Your task to perform on an android device: Open calendar and show me the fourth week of next month Image 0: 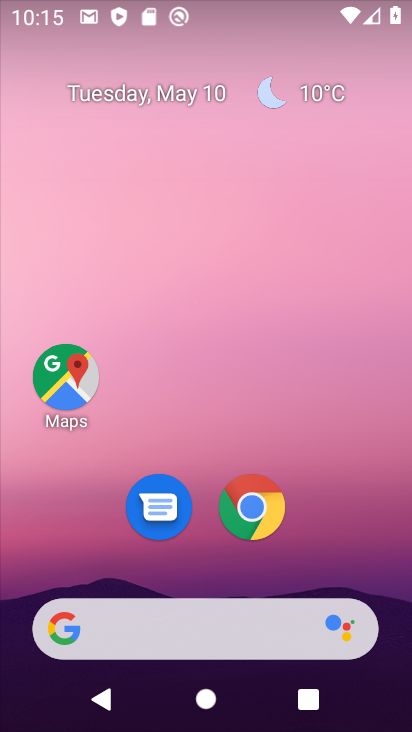
Step 0: drag from (329, 545) to (312, 142)
Your task to perform on an android device: Open calendar and show me the fourth week of next month Image 1: 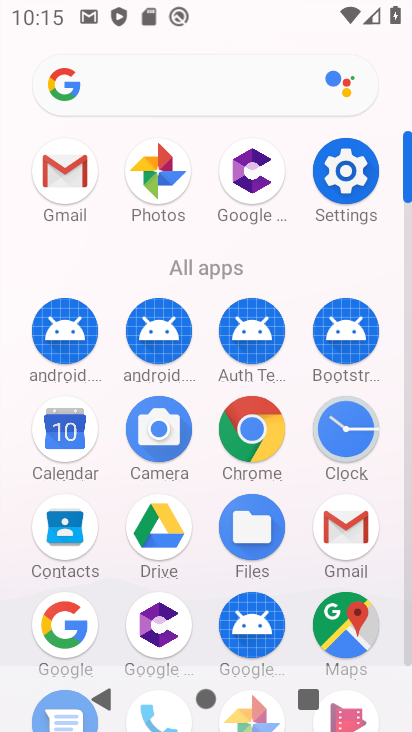
Step 1: click (78, 428)
Your task to perform on an android device: Open calendar and show me the fourth week of next month Image 2: 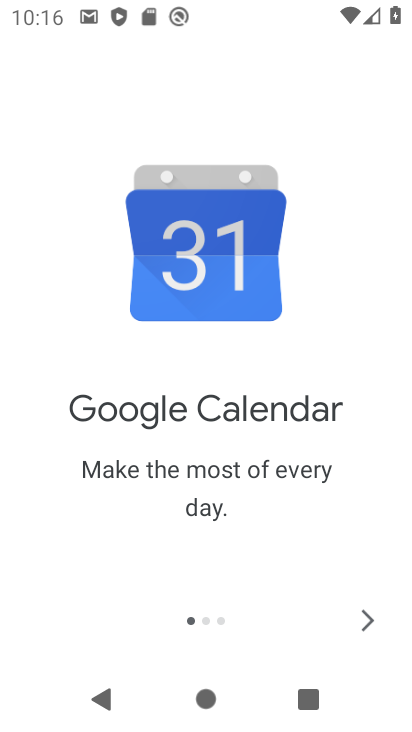
Step 2: click (372, 618)
Your task to perform on an android device: Open calendar and show me the fourth week of next month Image 3: 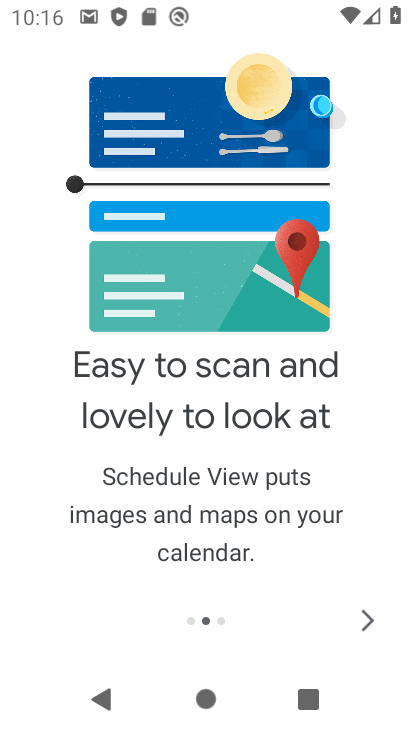
Step 3: click (366, 620)
Your task to perform on an android device: Open calendar and show me the fourth week of next month Image 4: 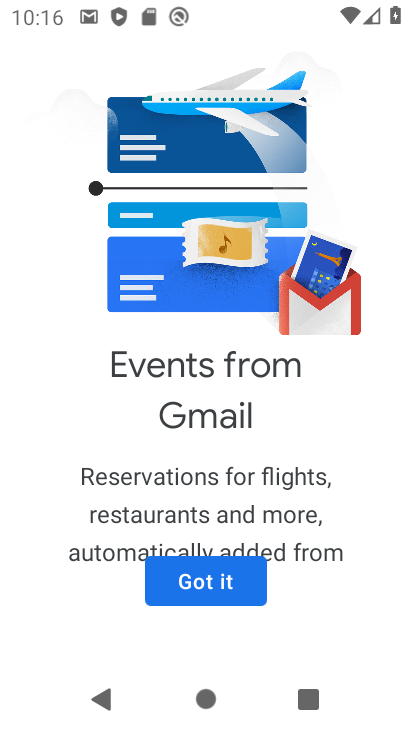
Step 4: click (252, 588)
Your task to perform on an android device: Open calendar and show me the fourth week of next month Image 5: 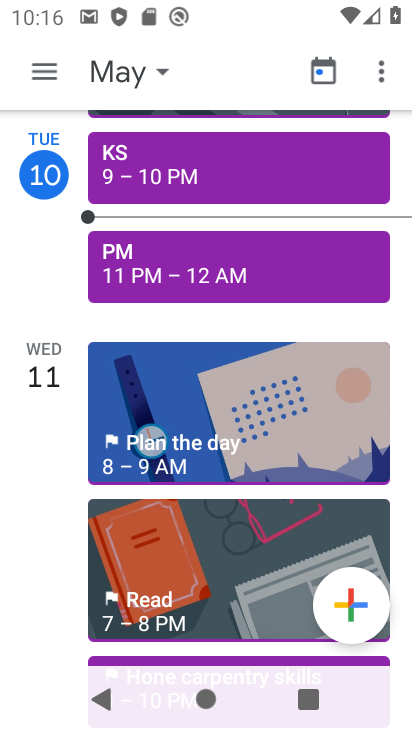
Step 5: click (119, 87)
Your task to perform on an android device: Open calendar and show me the fourth week of next month Image 6: 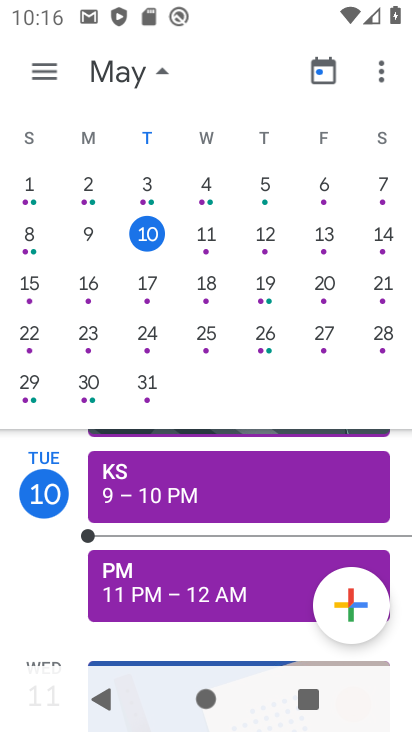
Step 6: drag from (327, 282) to (8, 269)
Your task to perform on an android device: Open calendar and show me the fourth week of next month Image 7: 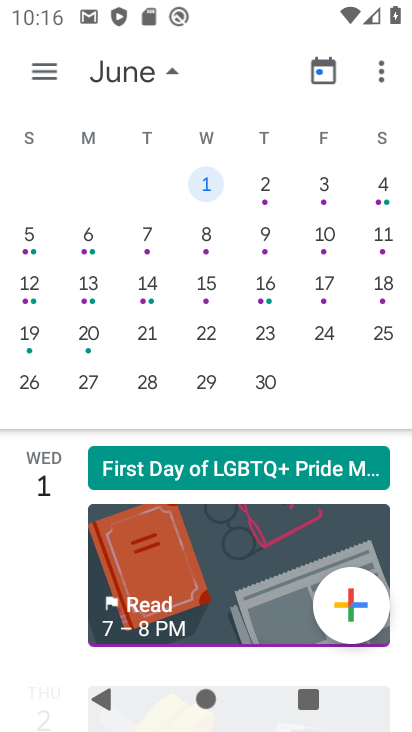
Step 7: click (39, 335)
Your task to perform on an android device: Open calendar and show me the fourth week of next month Image 8: 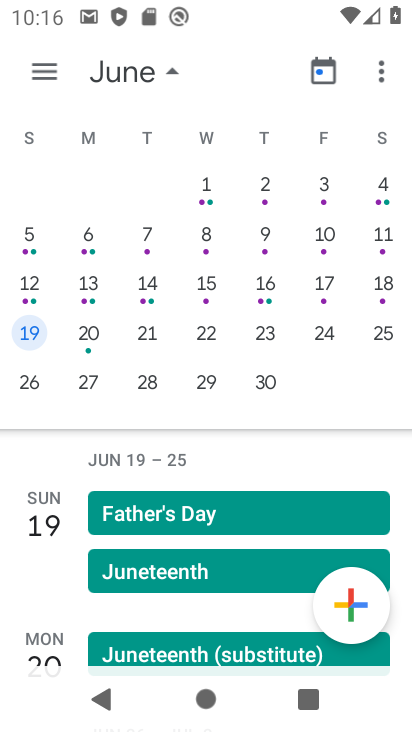
Step 8: click (94, 340)
Your task to perform on an android device: Open calendar and show me the fourth week of next month Image 9: 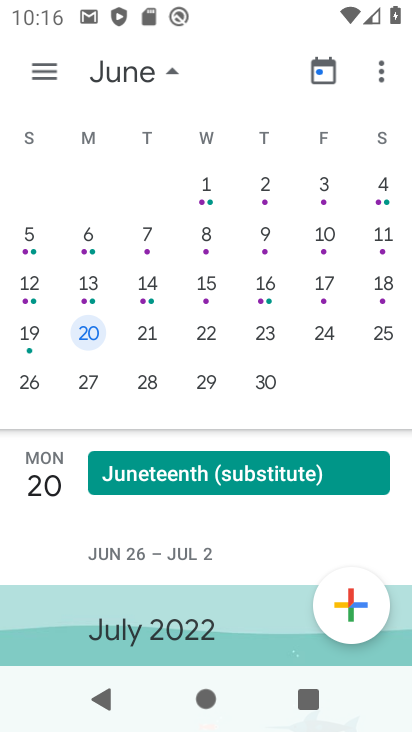
Step 9: click (163, 342)
Your task to perform on an android device: Open calendar and show me the fourth week of next month Image 10: 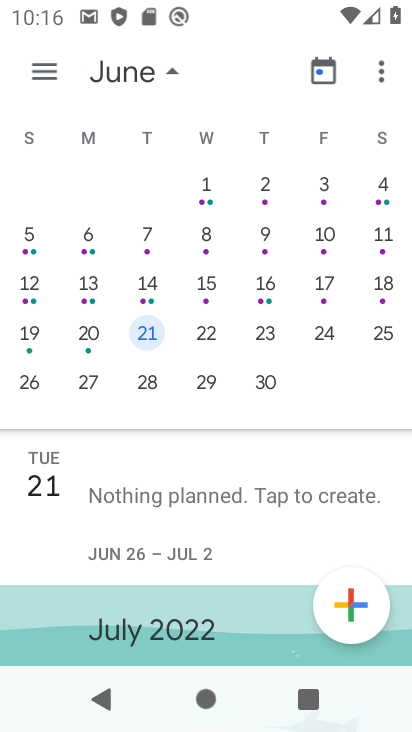
Step 10: click (196, 341)
Your task to perform on an android device: Open calendar and show me the fourth week of next month Image 11: 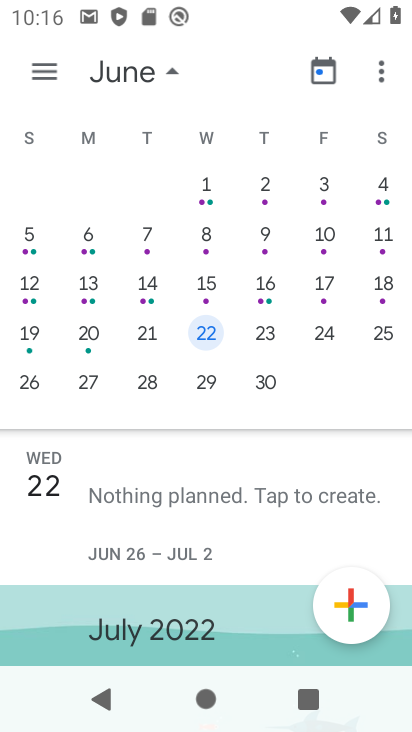
Step 11: click (271, 349)
Your task to perform on an android device: Open calendar and show me the fourth week of next month Image 12: 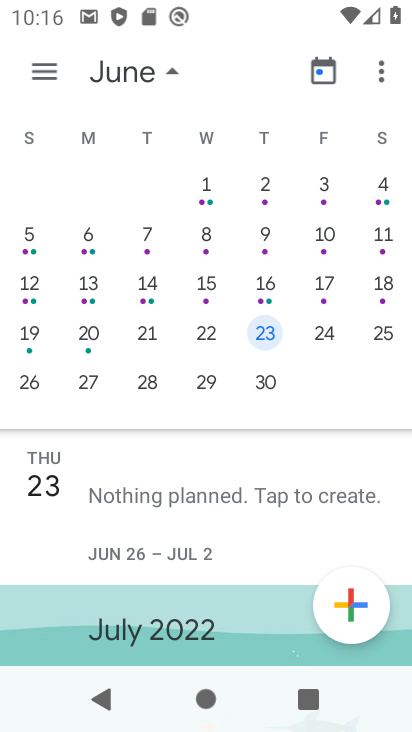
Step 12: click (320, 341)
Your task to perform on an android device: Open calendar and show me the fourth week of next month Image 13: 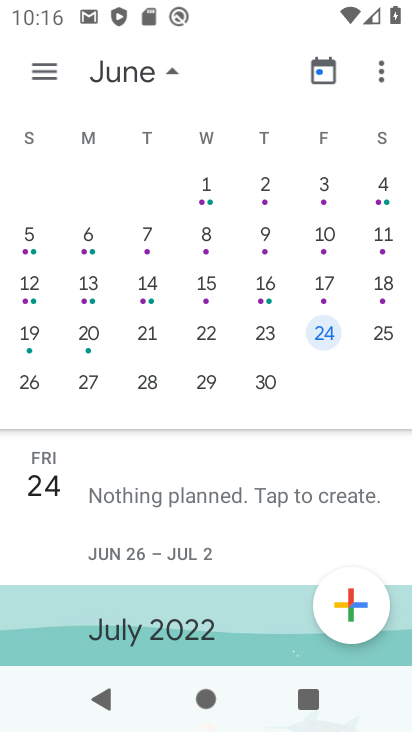
Step 13: click (395, 338)
Your task to perform on an android device: Open calendar and show me the fourth week of next month Image 14: 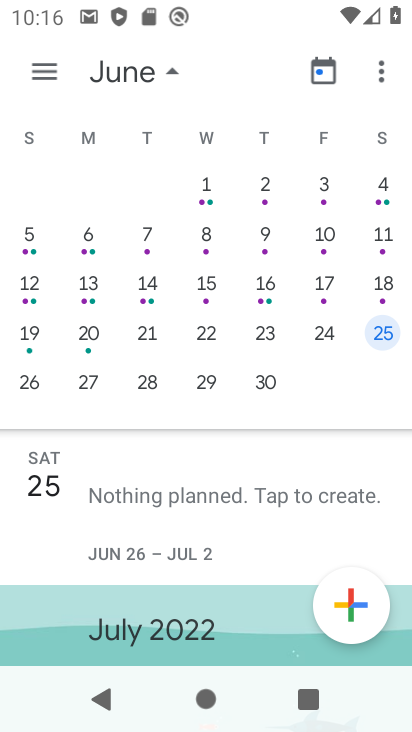
Step 14: task complete